Your task to perform on an android device: Open battery settings Image 0: 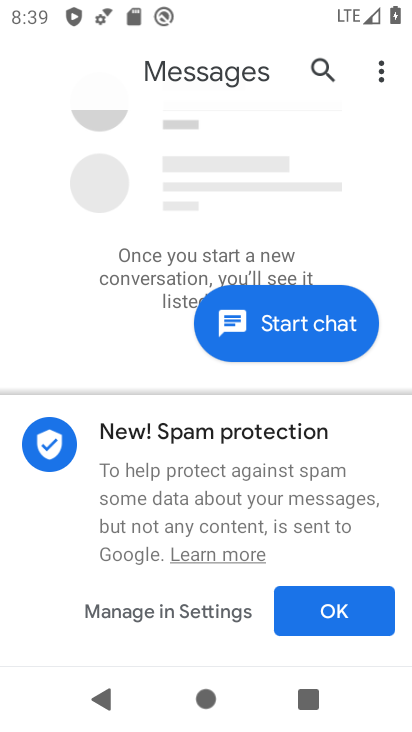
Step 0: press home button
Your task to perform on an android device: Open battery settings Image 1: 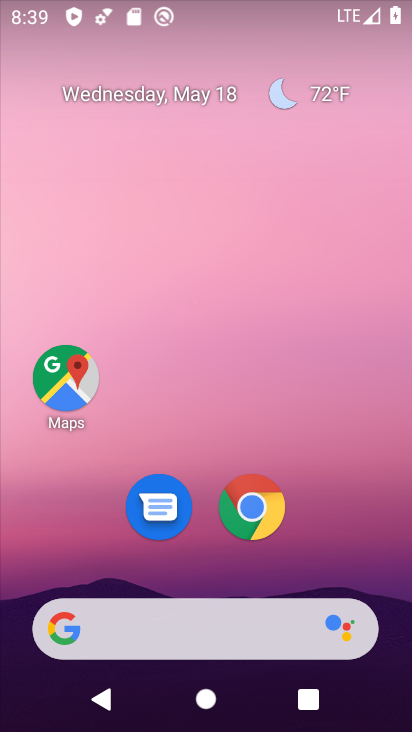
Step 1: drag from (334, 539) to (321, 47)
Your task to perform on an android device: Open battery settings Image 2: 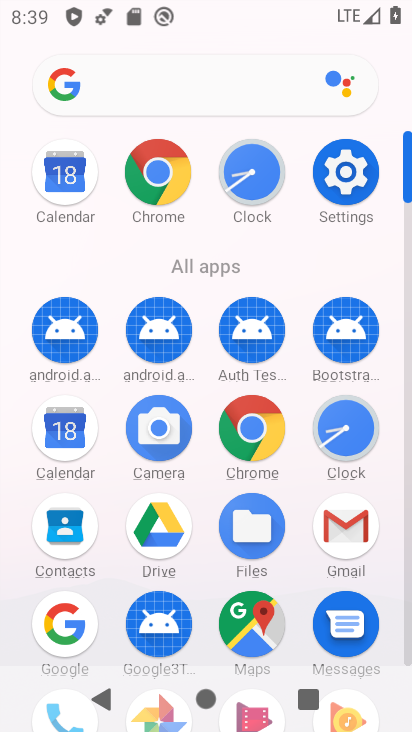
Step 2: click (334, 185)
Your task to perform on an android device: Open battery settings Image 3: 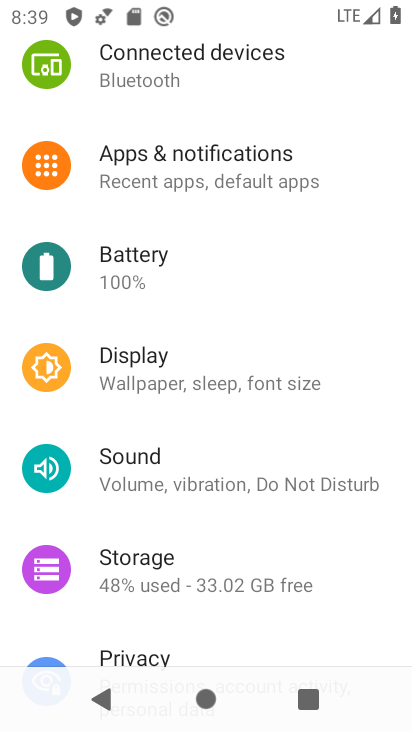
Step 3: click (110, 262)
Your task to perform on an android device: Open battery settings Image 4: 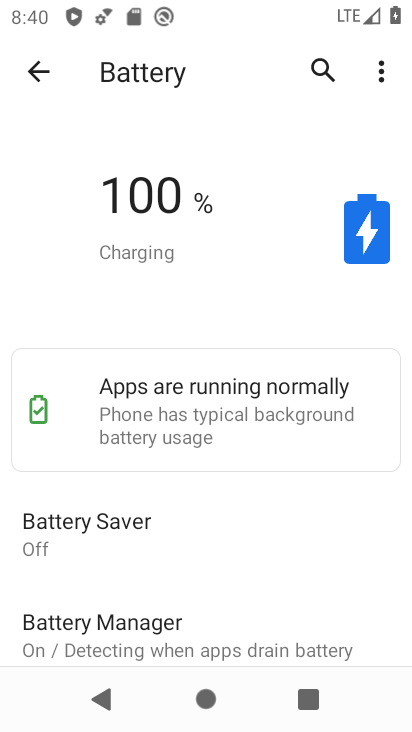
Step 4: task complete